Your task to perform on an android device: Go to network settings Image 0: 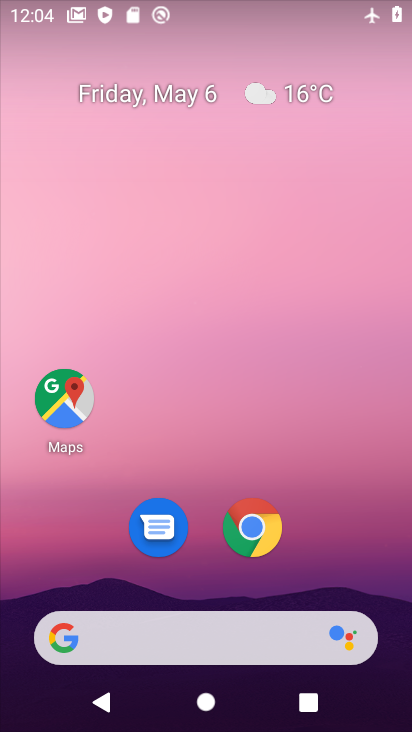
Step 0: press home button
Your task to perform on an android device: Go to network settings Image 1: 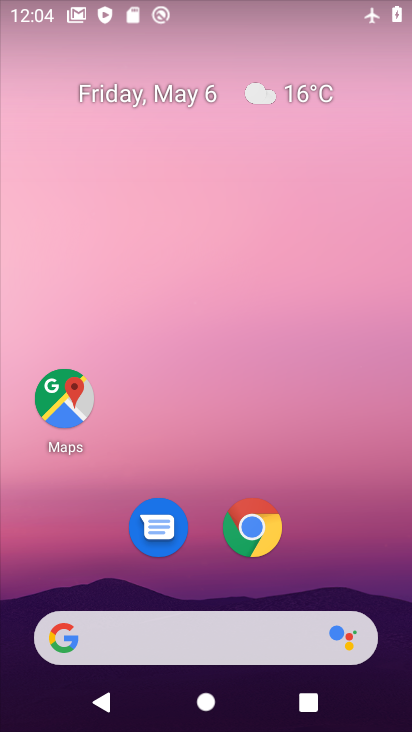
Step 1: drag from (339, 551) to (177, 141)
Your task to perform on an android device: Go to network settings Image 2: 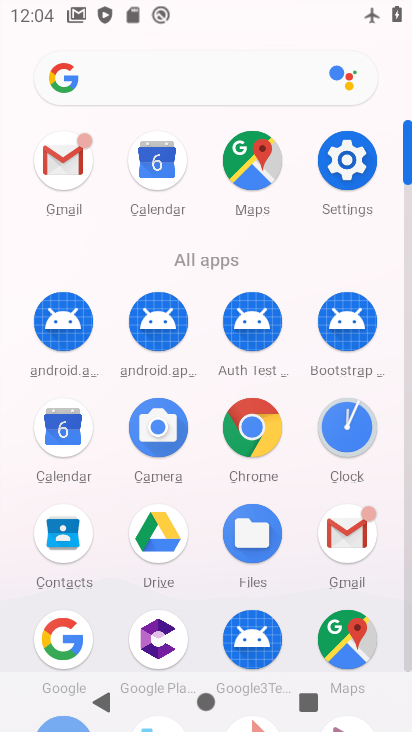
Step 2: click (350, 160)
Your task to perform on an android device: Go to network settings Image 3: 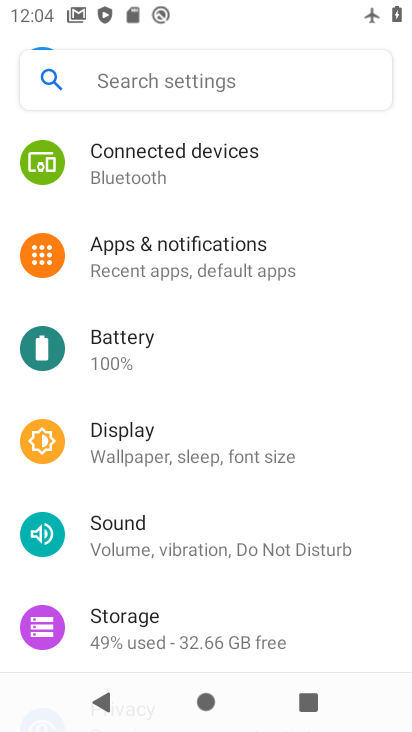
Step 3: drag from (192, 206) to (171, 436)
Your task to perform on an android device: Go to network settings Image 4: 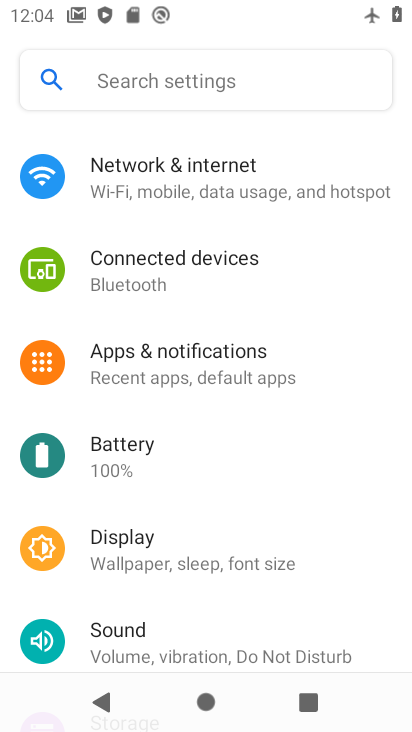
Step 4: click (159, 188)
Your task to perform on an android device: Go to network settings Image 5: 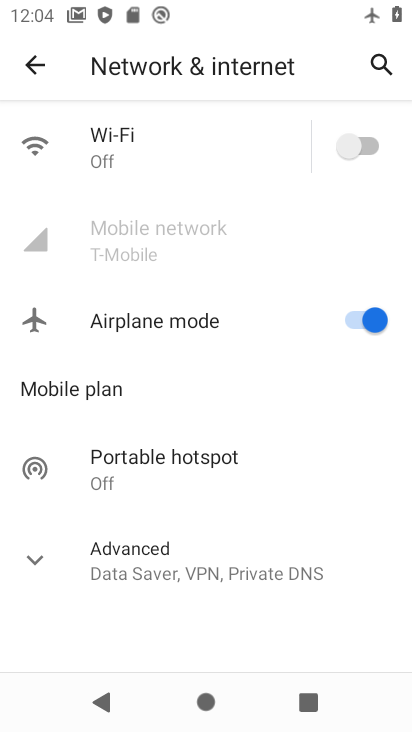
Step 5: task complete